Your task to perform on an android device: turn off priority inbox in the gmail app Image 0: 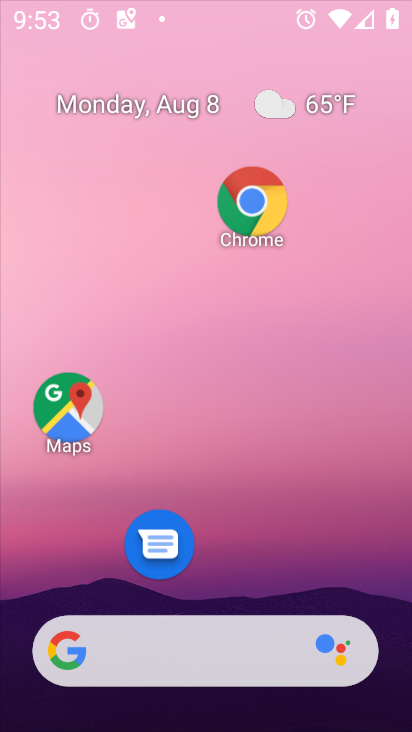
Step 0: press home button
Your task to perform on an android device: turn off priority inbox in the gmail app Image 1: 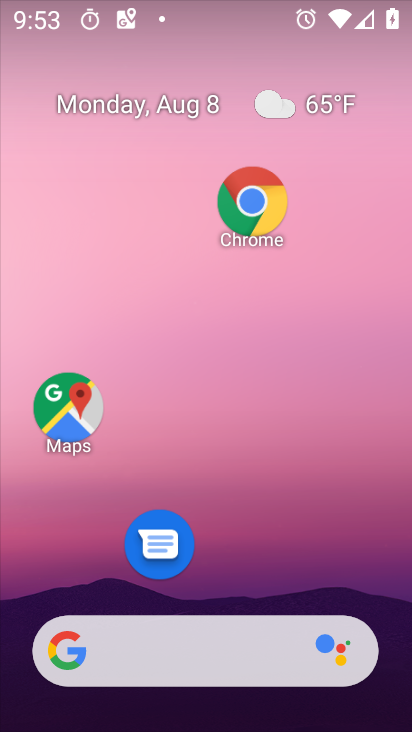
Step 1: drag from (243, 582) to (235, 46)
Your task to perform on an android device: turn off priority inbox in the gmail app Image 2: 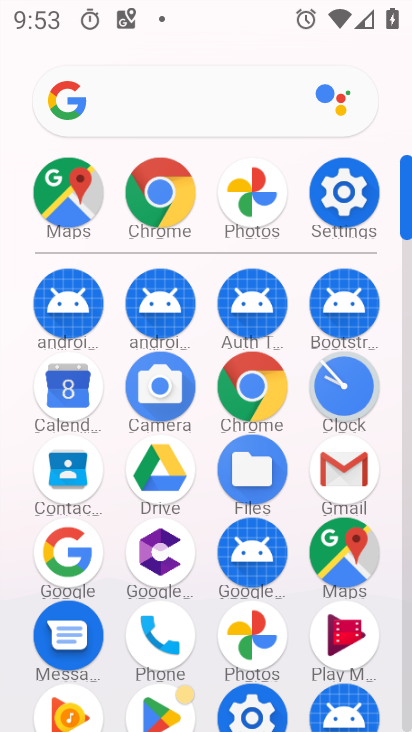
Step 2: click (343, 465)
Your task to perform on an android device: turn off priority inbox in the gmail app Image 3: 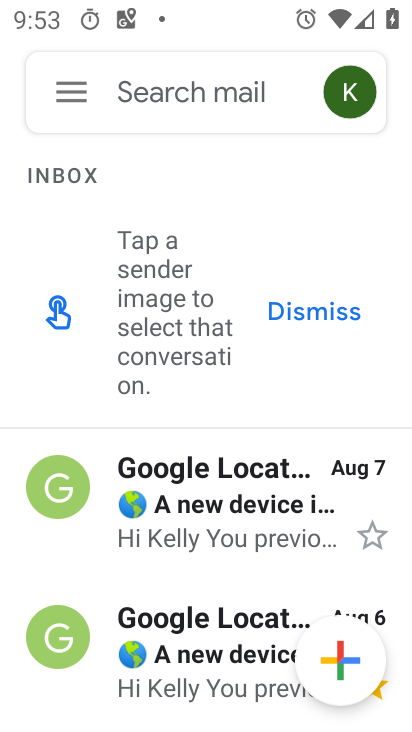
Step 3: click (69, 84)
Your task to perform on an android device: turn off priority inbox in the gmail app Image 4: 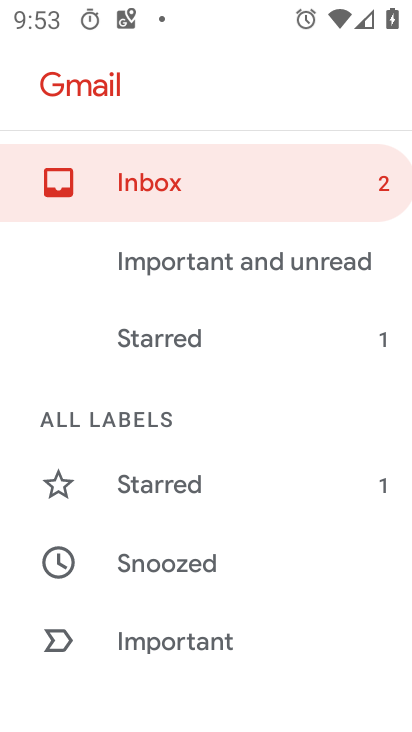
Step 4: drag from (200, 628) to (220, 115)
Your task to perform on an android device: turn off priority inbox in the gmail app Image 5: 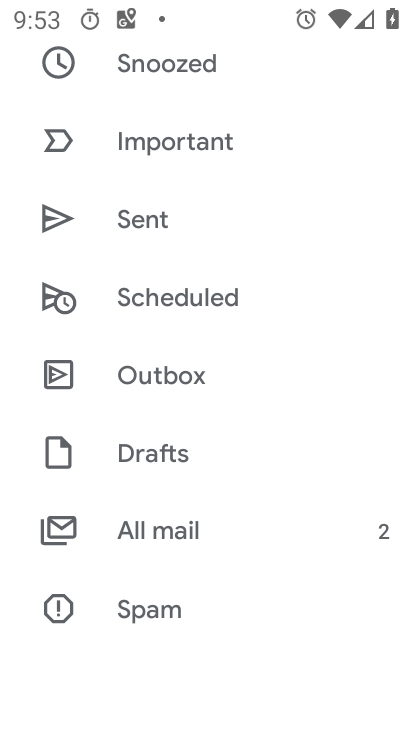
Step 5: drag from (189, 602) to (211, 176)
Your task to perform on an android device: turn off priority inbox in the gmail app Image 6: 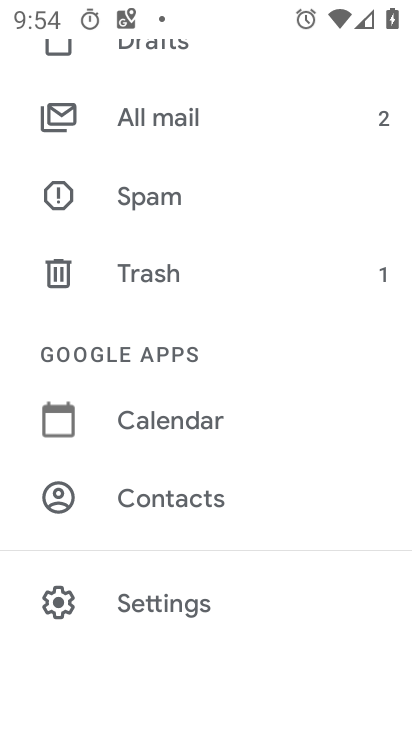
Step 6: click (156, 604)
Your task to perform on an android device: turn off priority inbox in the gmail app Image 7: 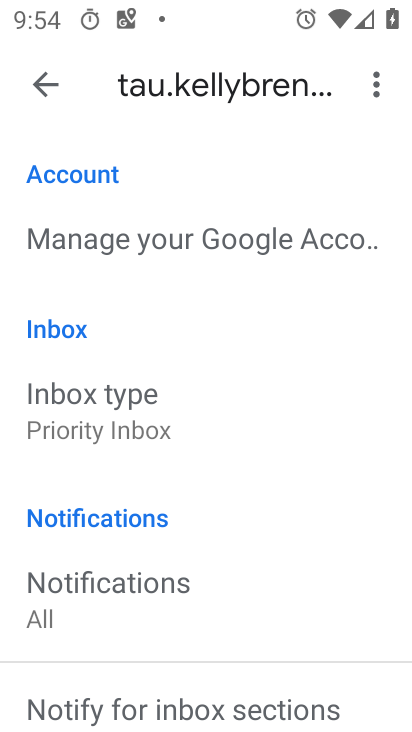
Step 7: click (179, 405)
Your task to perform on an android device: turn off priority inbox in the gmail app Image 8: 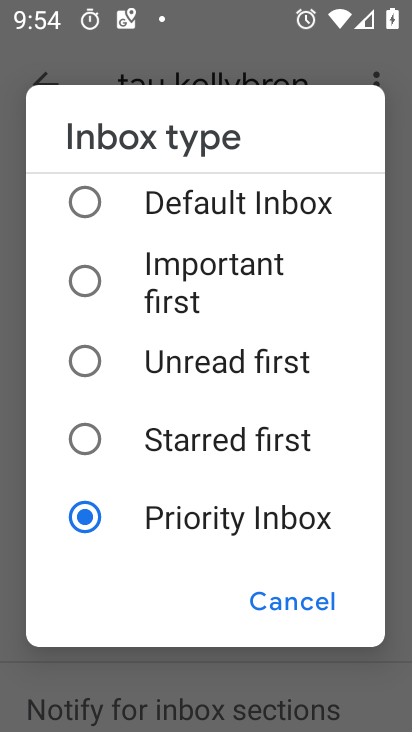
Step 8: click (88, 436)
Your task to perform on an android device: turn off priority inbox in the gmail app Image 9: 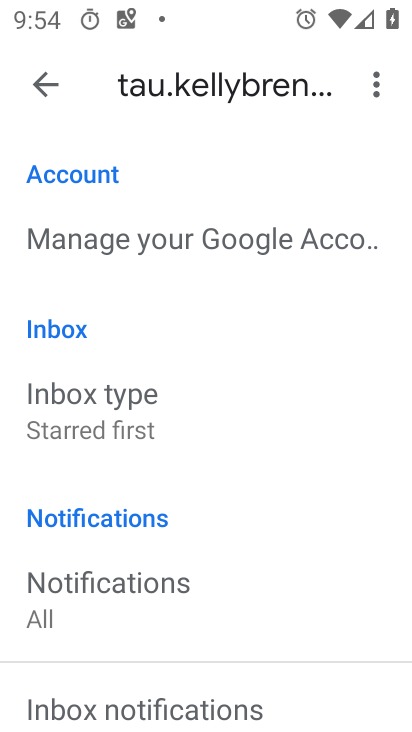
Step 9: task complete